Your task to perform on an android device: turn off airplane mode Image 0: 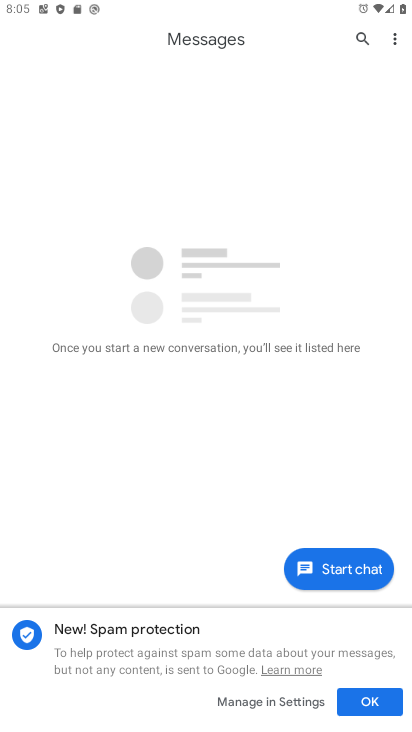
Step 0: press home button
Your task to perform on an android device: turn off airplane mode Image 1: 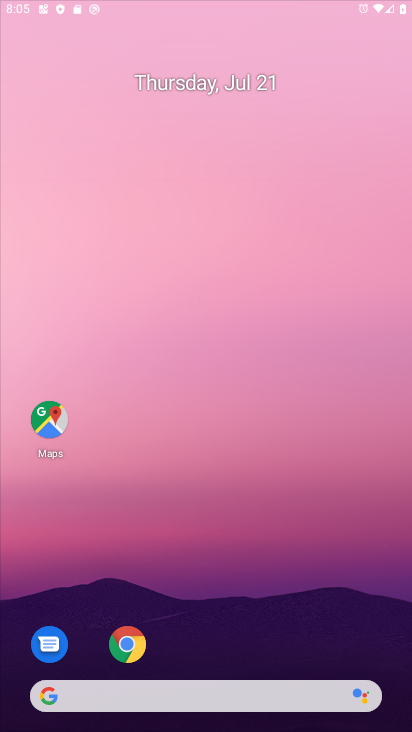
Step 1: drag from (229, 629) to (240, 218)
Your task to perform on an android device: turn off airplane mode Image 2: 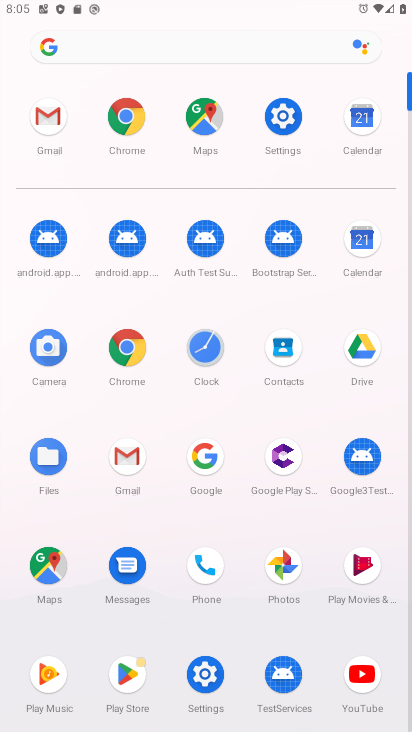
Step 2: click (280, 129)
Your task to perform on an android device: turn off airplane mode Image 3: 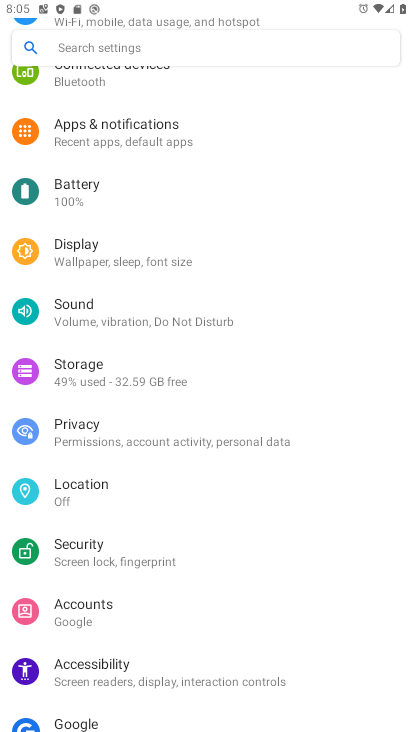
Step 3: drag from (102, 127) to (111, 457)
Your task to perform on an android device: turn off airplane mode Image 4: 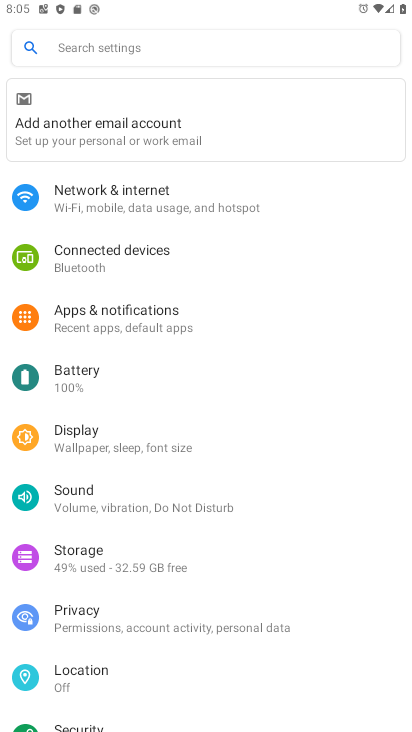
Step 4: click (121, 200)
Your task to perform on an android device: turn off airplane mode Image 5: 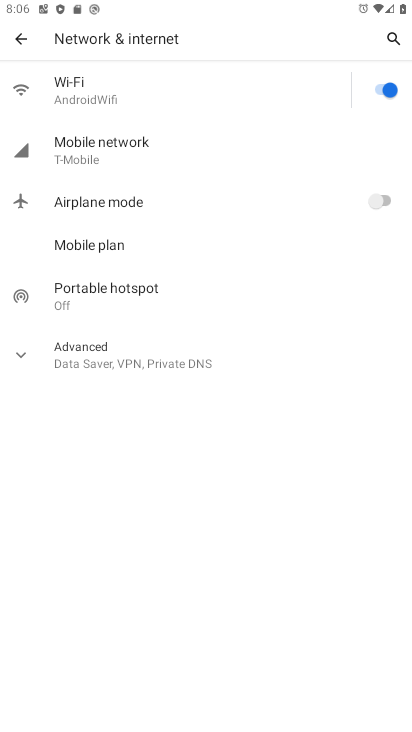
Step 5: task complete